Your task to perform on an android device: Open calendar and show me the fourth week of next month Image 0: 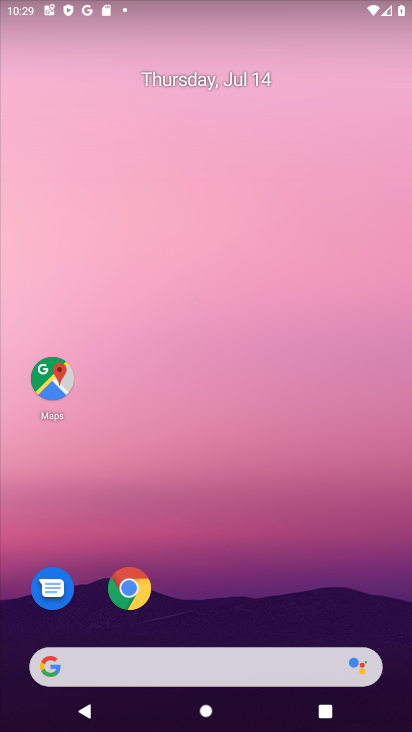
Step 0: drag from (182, 665) to (326, 120)
Your task to perform on an android device: Open calendar and show me the fourth week of next month Image 1: 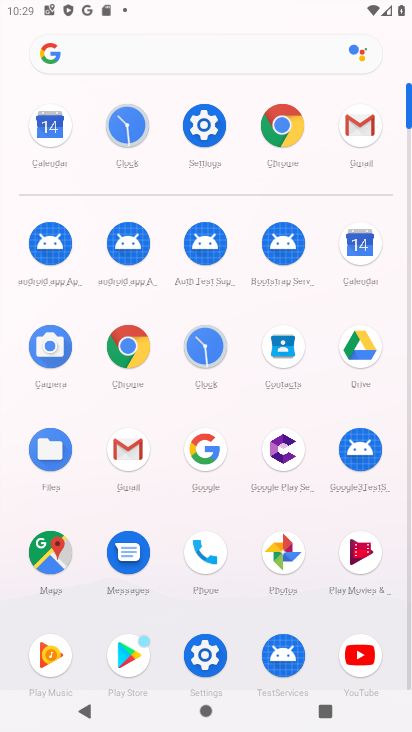
Step 1: click (53, 137)
Your task to perform on an android device: Open calendar and show me the fourth week of next month Image 2: 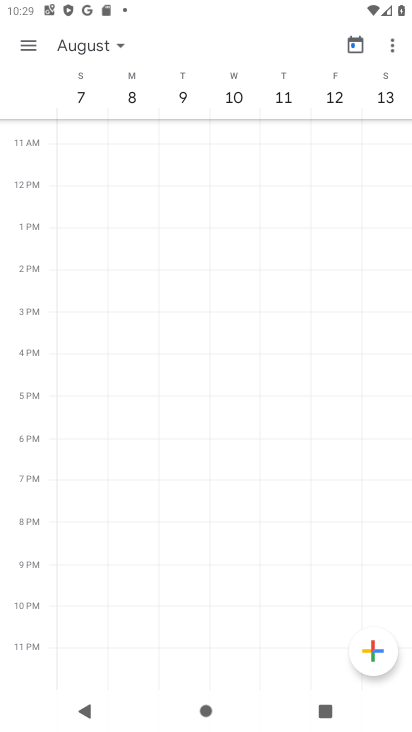
Step 2: click (90, 38)
Your task to perform on an android device: Open calendar and show me the fourth week of next month Image 3: 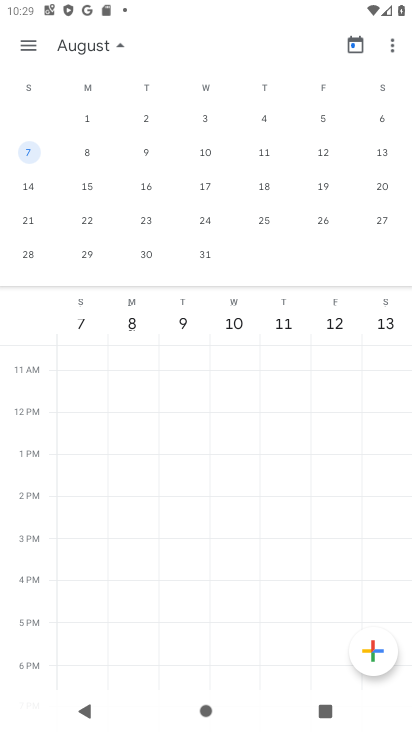
Step 3: click (26, 216)
Your task to perform on an android device: Open calendar and show me the fourth week of next month Image 4: 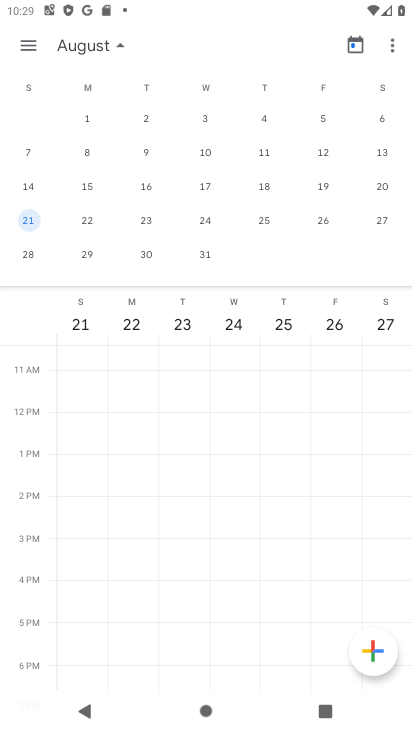
Step 4: click (26, 43)
Your task to perform on an android device: Open calendar and show me the fourth week of next month Image 5: 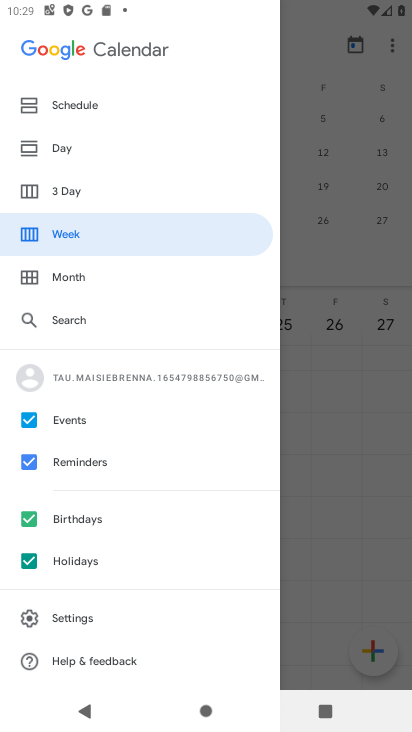
Step 5: click (66, 233)
Your task to perform on an android device: Open calendar and show me the fourth week of next month Image 6: 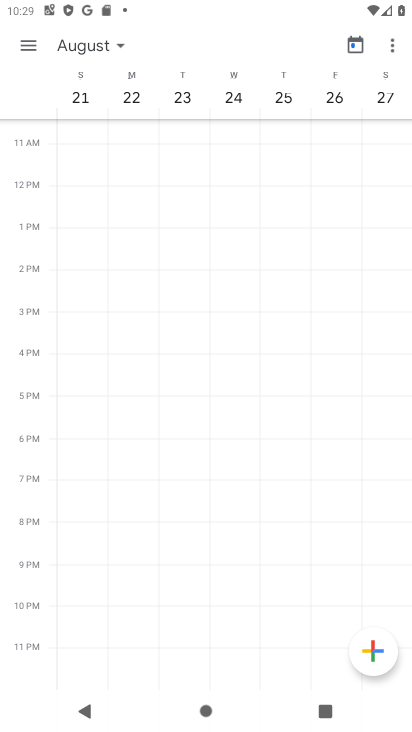
Step 6: task complete